Your task to perform on an android device: turn vacation reply on in the gmail app Image 0: 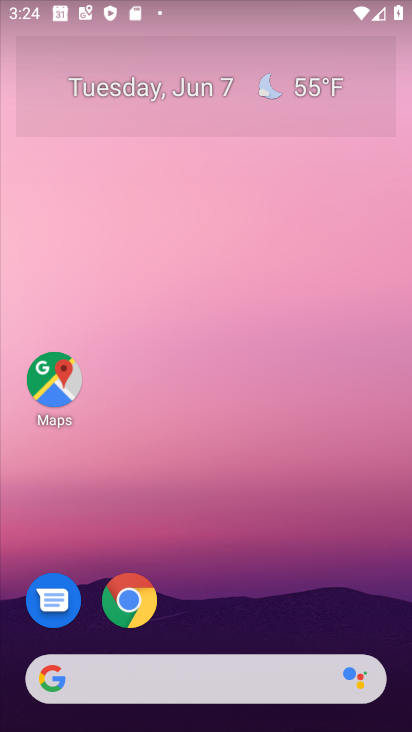
Step 0: drag from (209, 601) to (155, 109)
Your task to perform on an android device: turn vacation reply on in the gmail app Image 1: 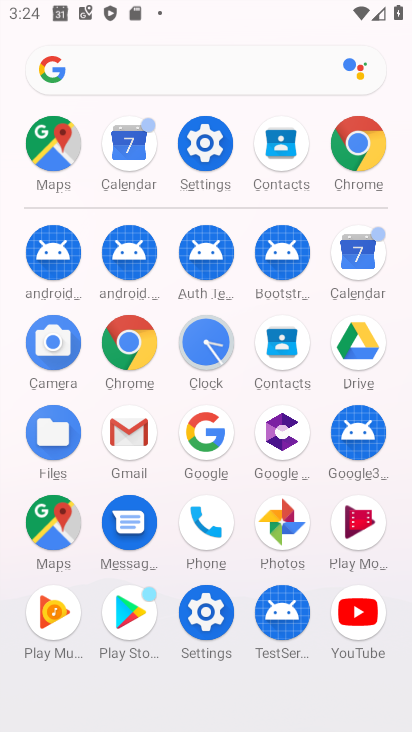
Step 1: click (129, 449)
Your task to perform on an android device: turn vacation reply on in the gmail app Image 2: 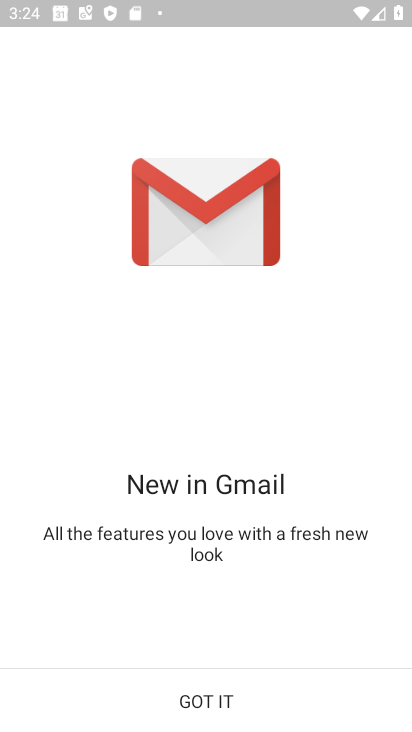
Step 2: click (199, 699)
Your task to perform on an android device: turn vacation reply on in the gmail app Image 3: 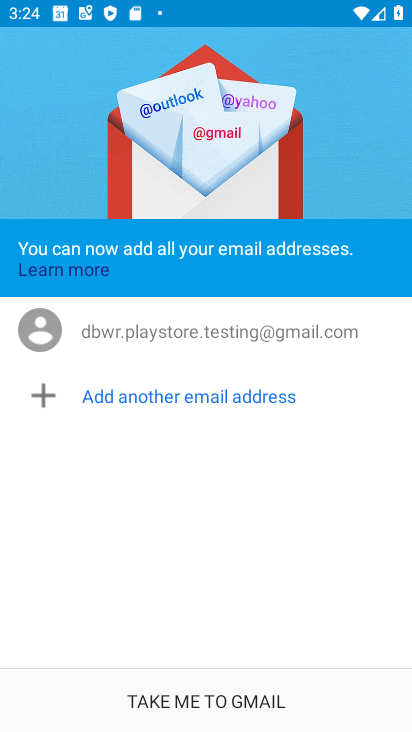
Step 3: click (210, 694)
Your task to perform on an android device: turn vacation reply on in the gmail app Image 4: 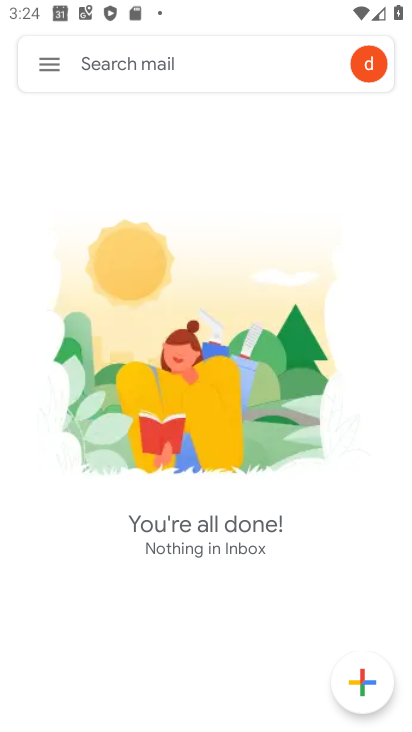
Step 4: click (42, 73)
Your task to perform on an android device: turn vacation reply on in the gmail app Image 5: 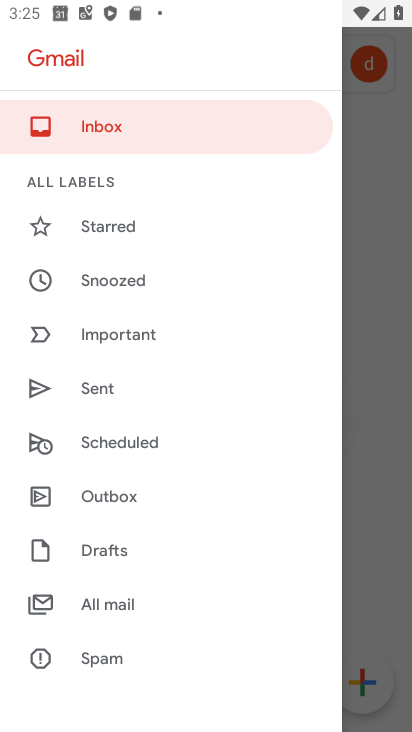
Step 5: drag from (154, 612) to (164, 204)
Your task to perform on an android device: turn vacation reply on in the gmail app Image 6: 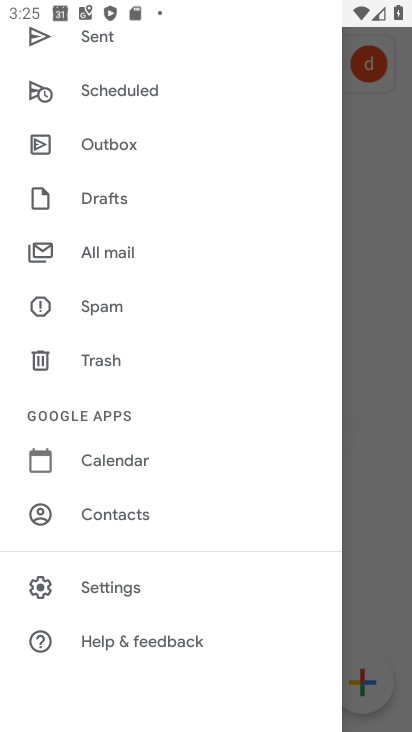
Step 6: click (103, 600)
Your task to perform on an android device: turn vacation reply on in the gmail app Image 7: 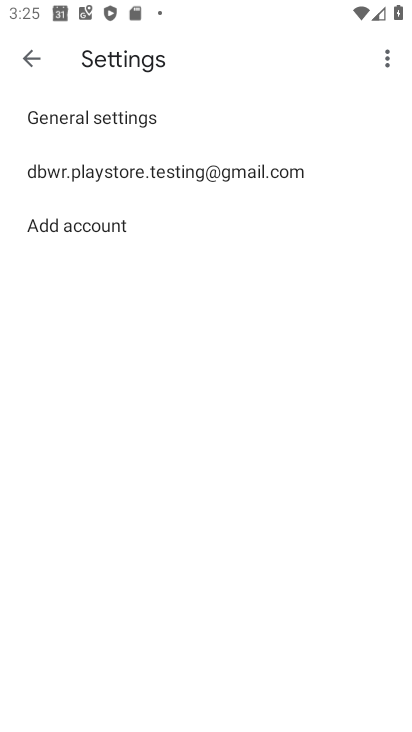
Step 7: click (136, 179)
Your task to perform on an android device: turn vacation reply on in the gmail app Image 8: 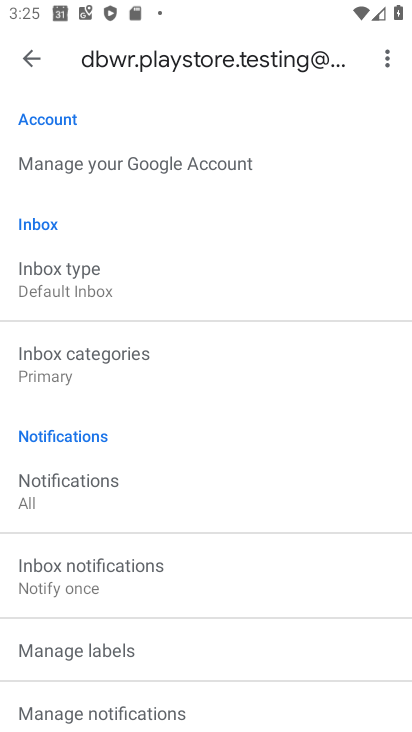
Step 8: drag from (147, 658) to (201, 372)
Your task to perform on an android device: turn vacation reply on in the gmail app Image 9: 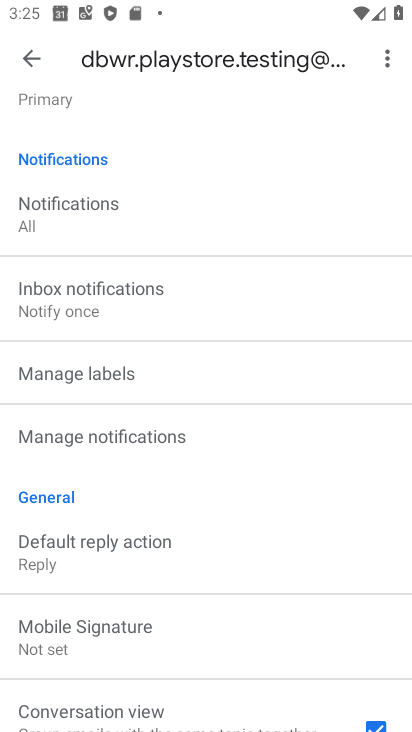
Step 9: drag from (170, 660) to (176, 407)
Your task to perform on an android device: turn vacation reply on in the gmail app Image 10: 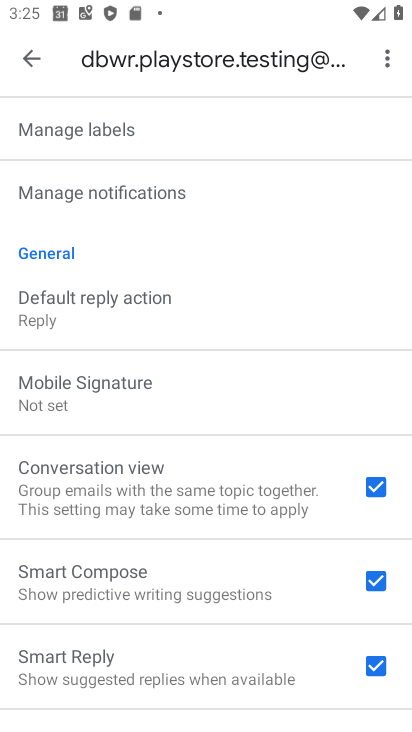
Step 10: drag from (132, 646) to (130, 314)
Your task to perform on an android device: turn vacation reply on in the gmail app Image 11: 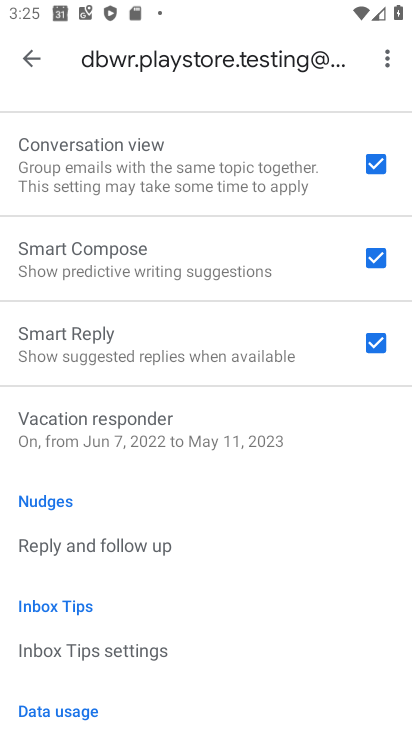
Step 11: click (144, 431)
Your task to perform on an android device: turn vacation reply on in the gmail app Image 12: 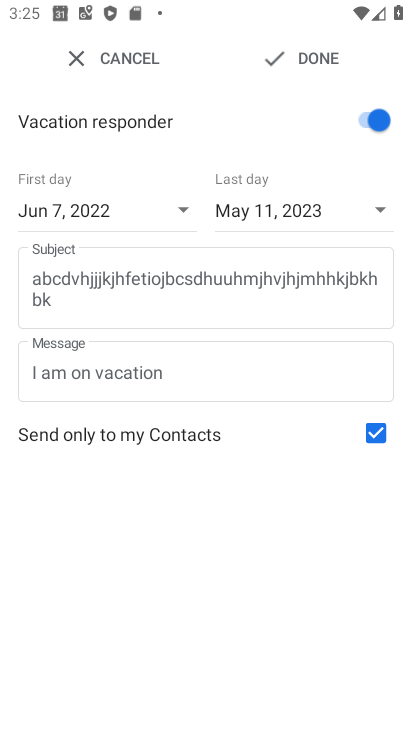
Step 12: task complete